Your task to perform on an android device: star an email in the gmail app Image 0: 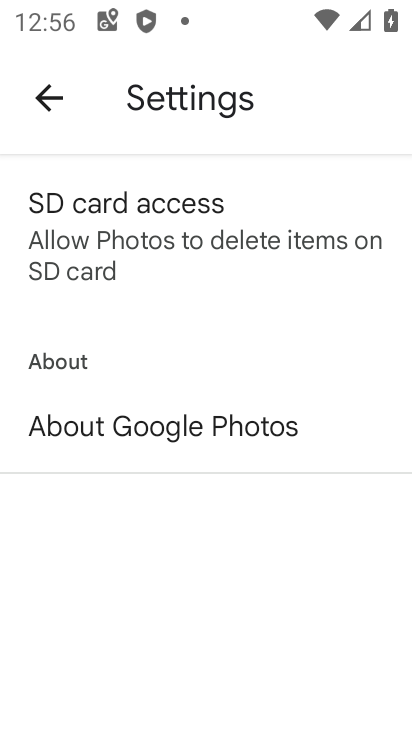
Step 0: press home button
Your task to perform on an android device: star an email in the gmail app Image 1: 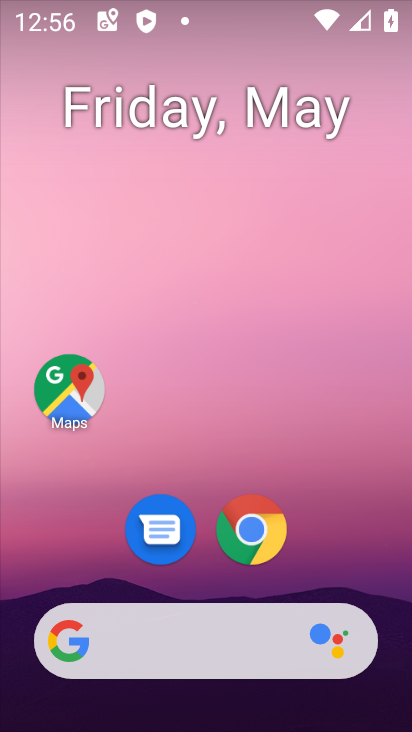
Step 1: drag from (347, 551) to (333, 243)
Your task to perform on an android device: star an email in the gmail app Image 2: 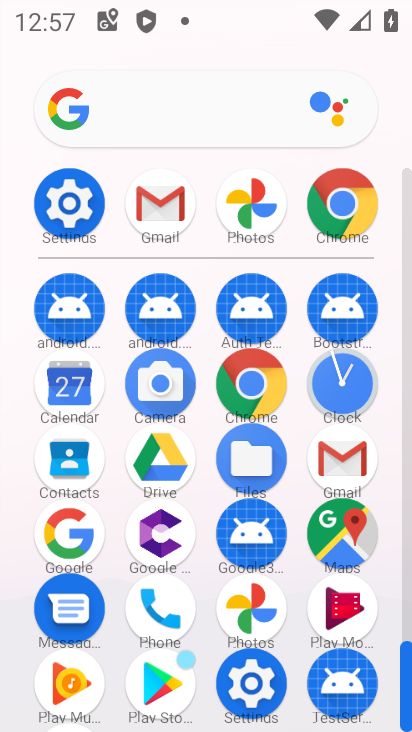
Step 2: click (174, 230)
Your task to perform on an android device: star an email in the gmail app Image 3: 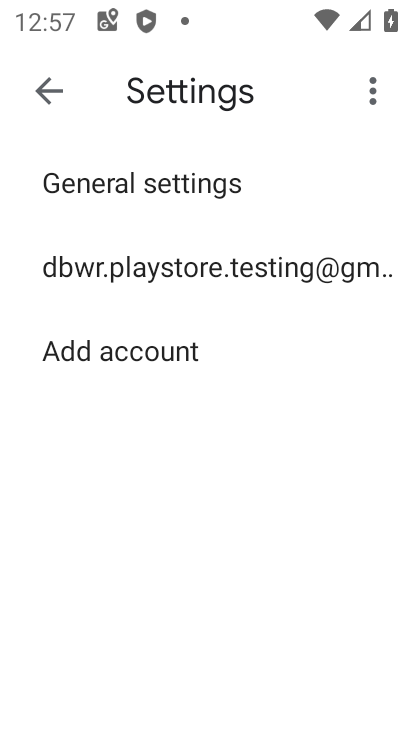
Step 3: click (47, 94)
Your task to perform on an android device: star an email in the gmail app Image 4: 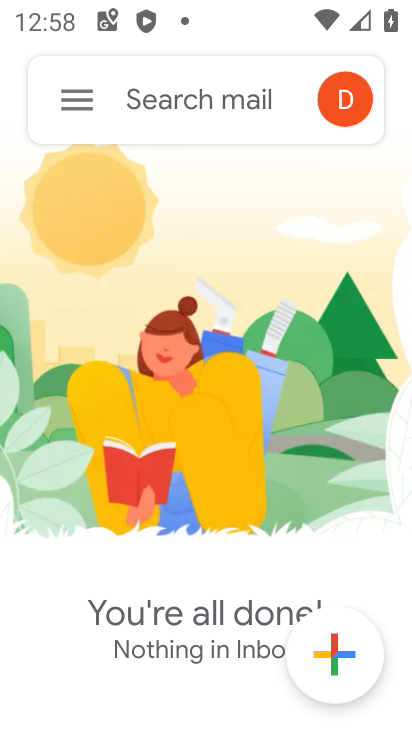
Step 4: task complete